Your task to perform on an android device: uninstall "LiveIn - Share Your Moment" Image 0: 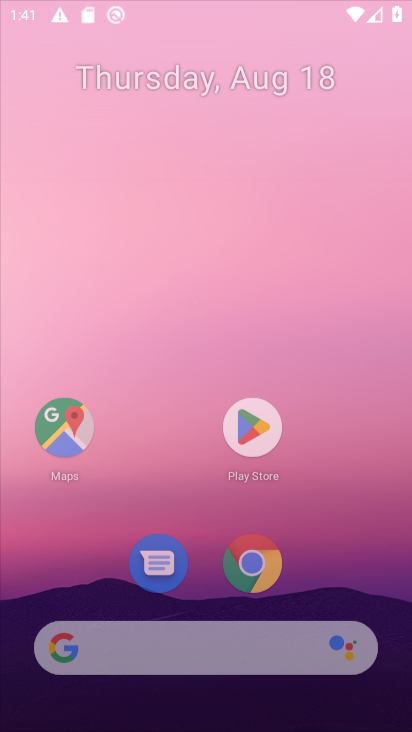
Step 0: press home button
Your task to perform on an android device: uninstall "LiveIn - Share Your Moment" Image 1: 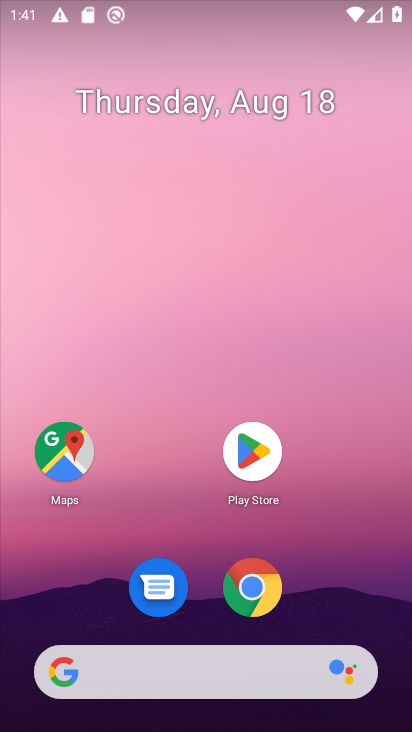
Step 1: click (257, 454)
Your task to perform on an android device: uninstall "LiveIn - Share Your Moment" Image 2: 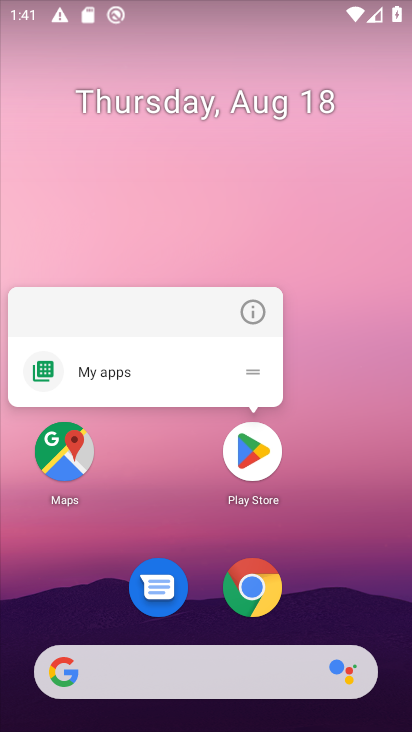
Step 2: click (257, 453)
Your task to perform on an android device: uninstall "LiveIn - Share Your Moment" Image 3: 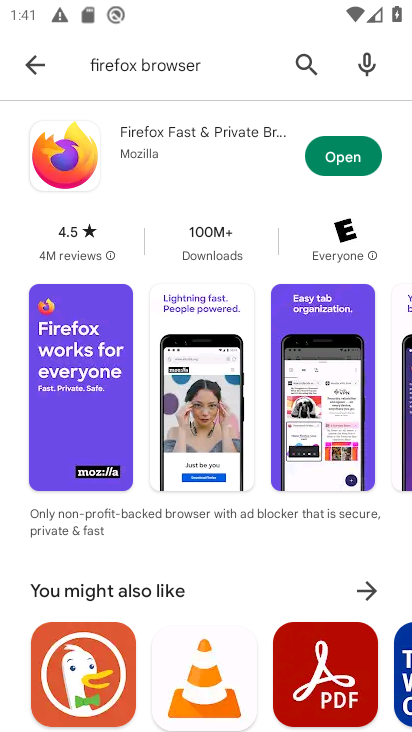
Step 3: click (302, 61)
Your task to perform on an android device: uninstall "LiveIn - Share Your Moment" Image 4: 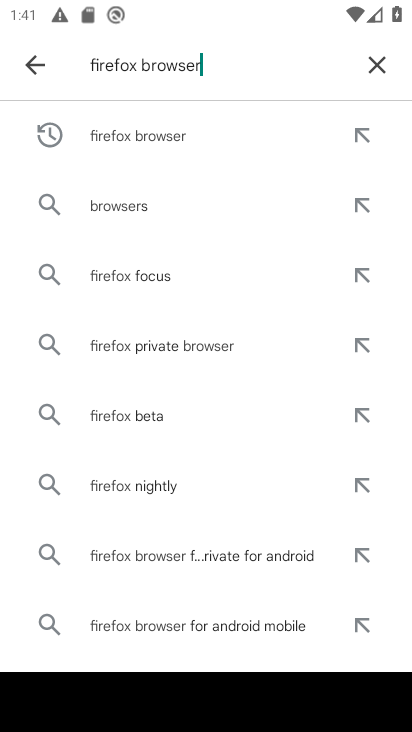
Step 4: click (379, 60)
Your task to perform on an android device: uninstall "LiveIn - Share Your Moment" Image 5: 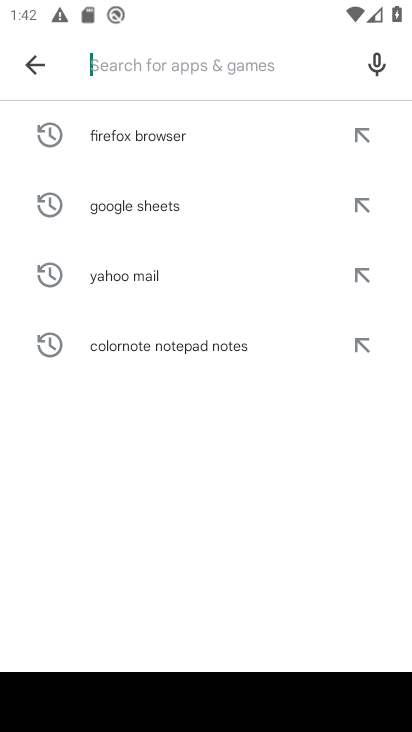
Step 5: type "LiveIn - Share Your Moment"
Your task to perform on an android device: uninstall "LiveIn - Share Your Moment" Image 6: 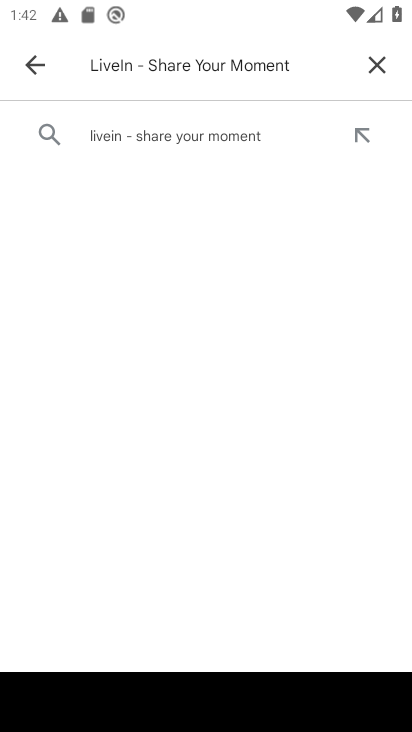
Step 6: click (167, 131)
Your task to perform on an android device: uninstall "LiveIn - Share Your Moment" Image 7: 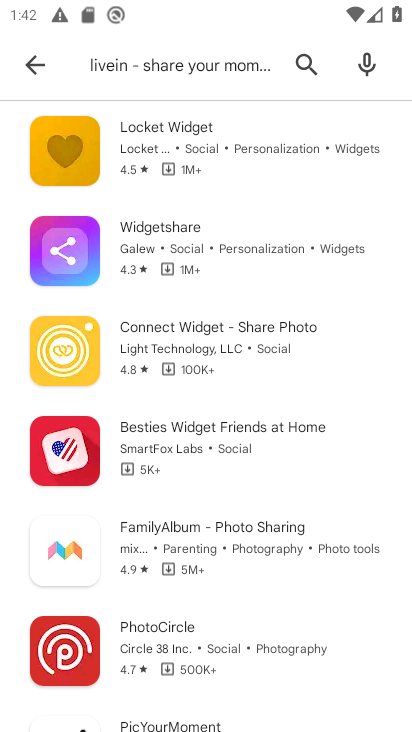
Step 7: task complete